Your task to perform on an android device: Go to Maps Image 0: 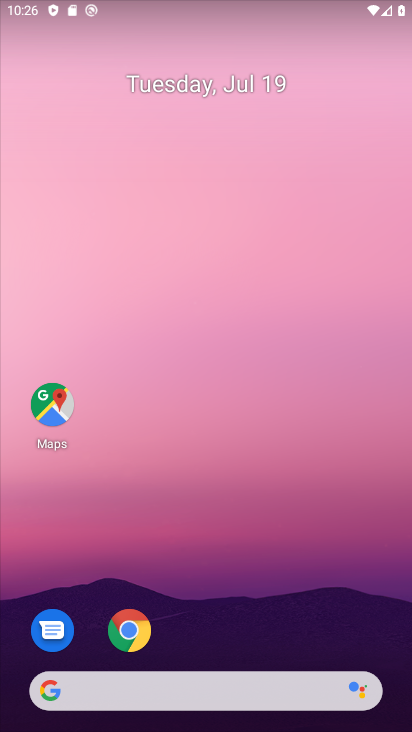
Step 0: click (38, 401)
Your task to perform on an android device: Go to Maps Image 1: 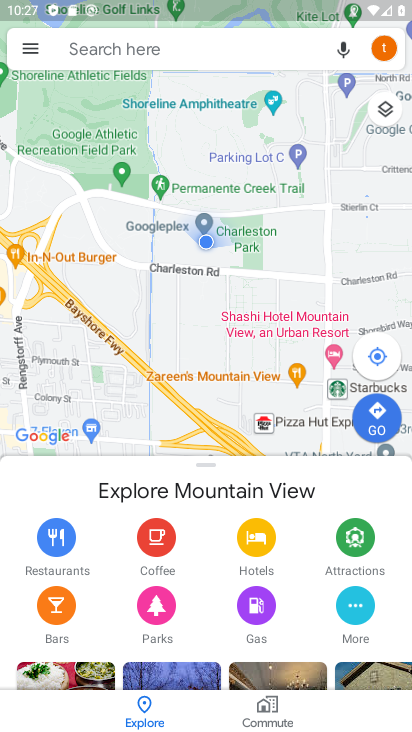
Step 1: task complete